Your task to perform on an android device: find which apps use the phone's location Image 0: 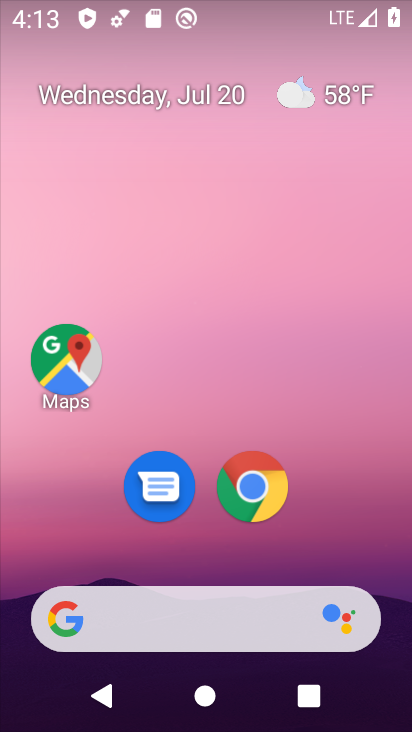
Step 0: drag from (230, 530) to (268, 9)
Your task to perform on an android device: find which apps use the phone's location Image 1: 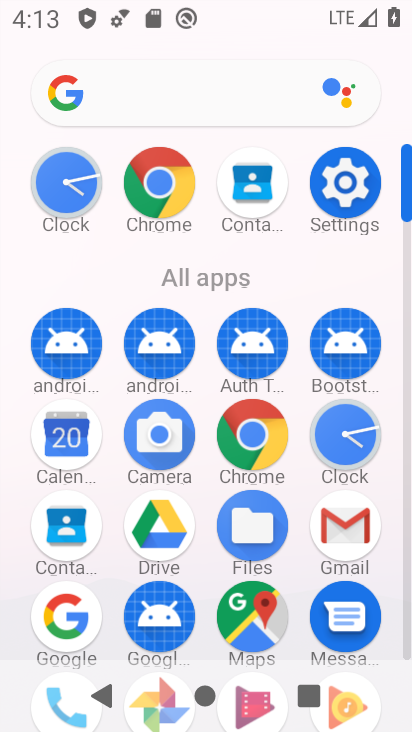
Step 1: click (330, 169)
Your task to perform on an android device: find which apps use the phone's location Image 2: 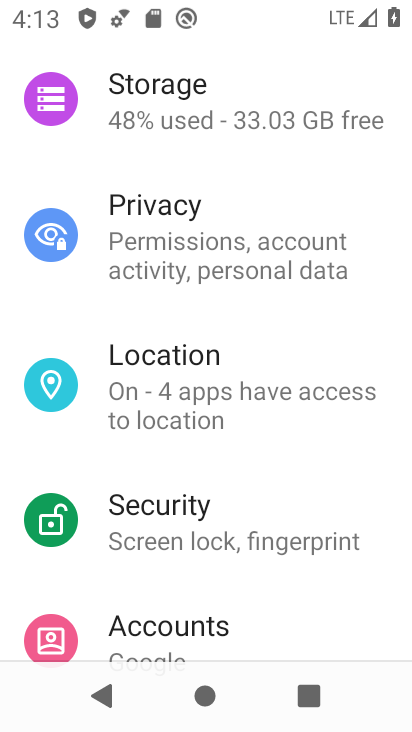
Step 2: click (178, 375)
Your task to perform on an android device: find which apps use the phone's location Image 3: 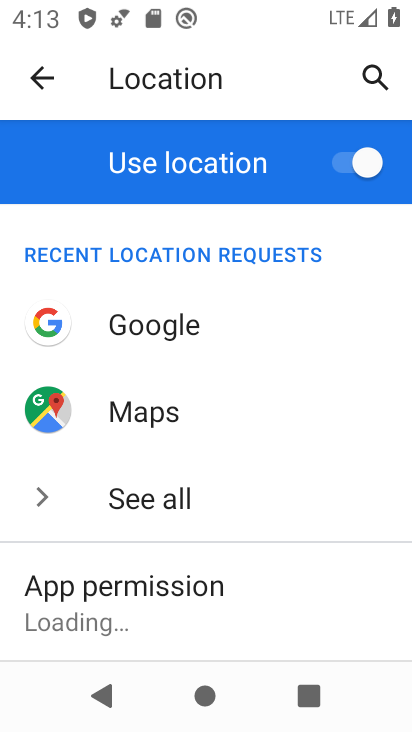
Step 3: click (122, 603)
Your task to perform on an android device: find which apps use the phone's location Image 4: 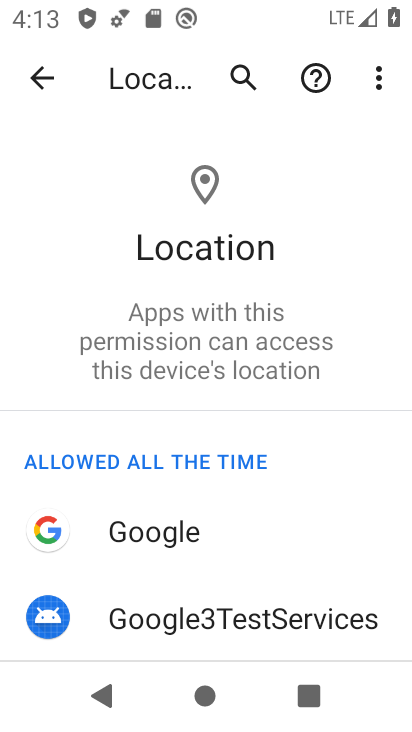
Step 4: task complete